Your task to perform on an android device: Add logitech g pro to the cart on amazon.com Image 0: 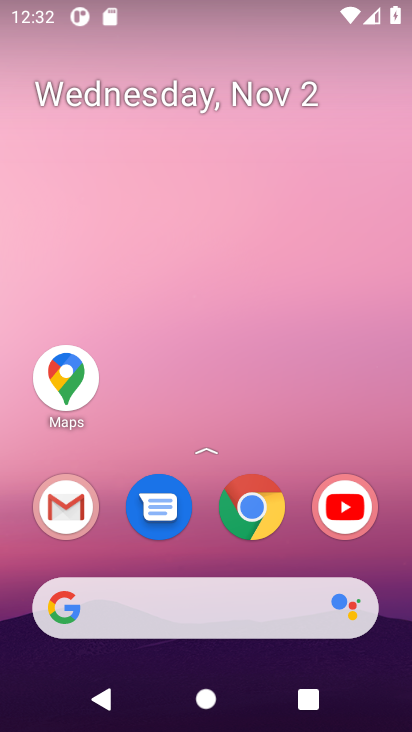
Step 0: click (184, 626)
Your task to perform on an android device: Add logitech g pro to the cart on amazon.com Image 1: 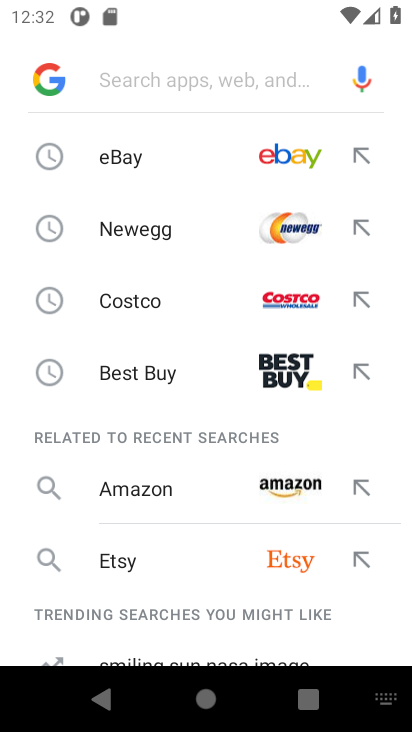
Step 1: click (135, 480)
Your task to perform on an android device: Add logitech g pro to the cart on amazon.com Image 2: 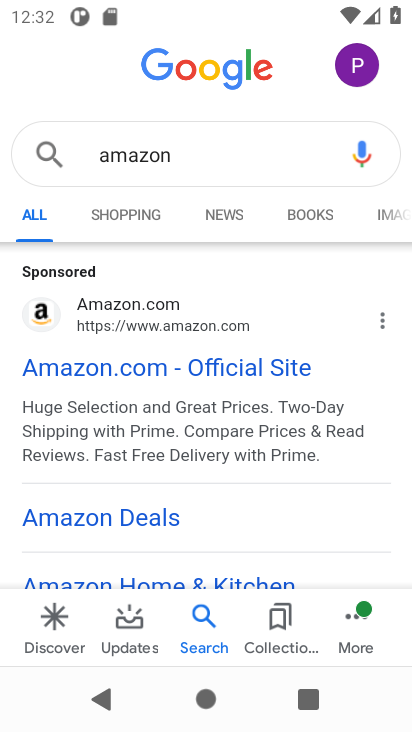
Step 2: click (81, 353)
Your task to perform on an android device: Add logitech g pro to the cart on amazon.com Image 3: 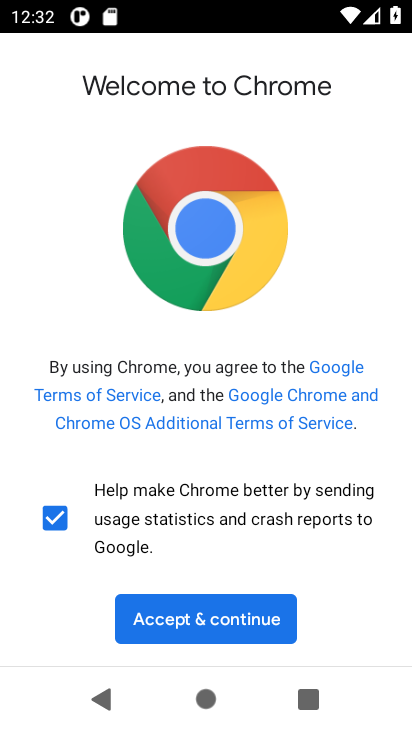
Step 3: click (242, 622)
Your task to perform on an android device: Add logitech g pro to the cart on amazon.com Image 4: 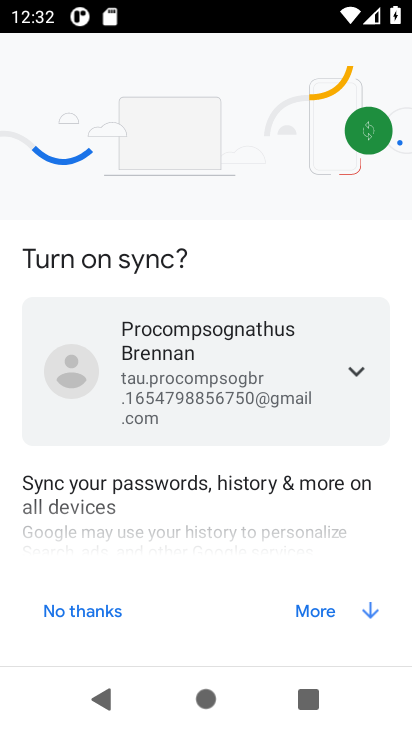
Step 4: click (334, 608)
Your task to perform on an android device: Add logitech g pro to the cart on amazon.com Image 5: 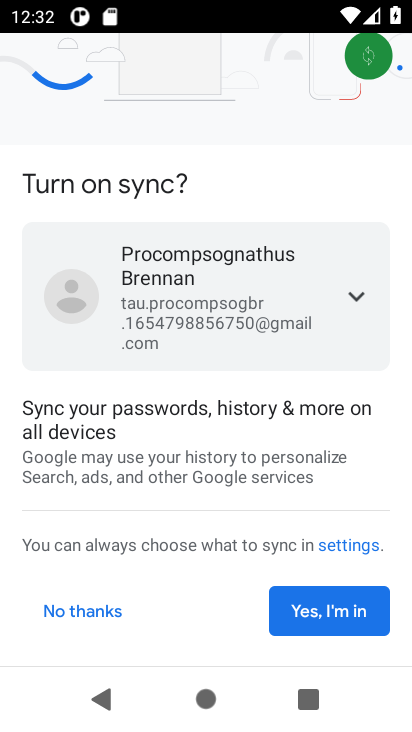
Step 5: click (349, 601)
Your task to perform on an android device: Add logitech g pro to the cart on amazon.com Image 6: 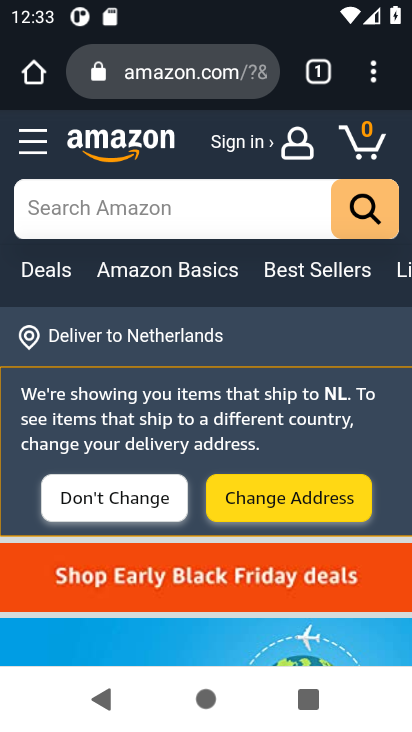
Step 6: click (259, 207)
Your task to perform on an android device: Add logitech g pro to the cart on amazon.com Image 7: 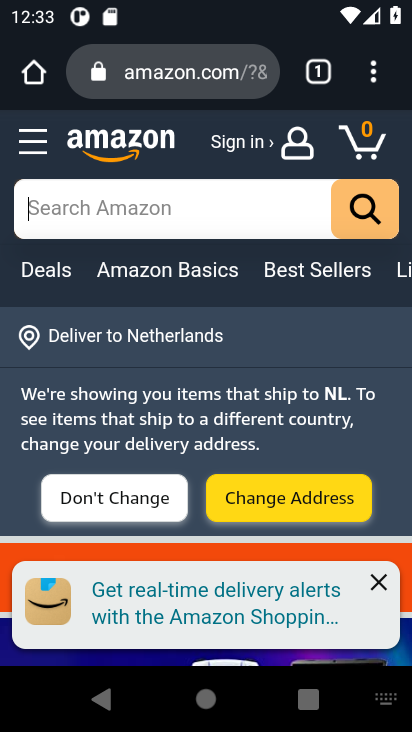
Step 7: click (391, 711)
Your task to perform on an android device: Add logitech g pro to the cart on amazon.com Image 8: 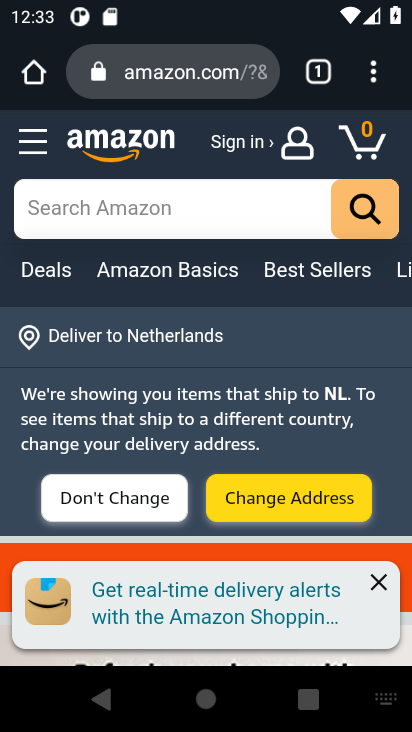
Step 8: type "logitech g pro"
Your task to perform on an android device: Add logitech g pro to the cart on amazon.com Image 9: 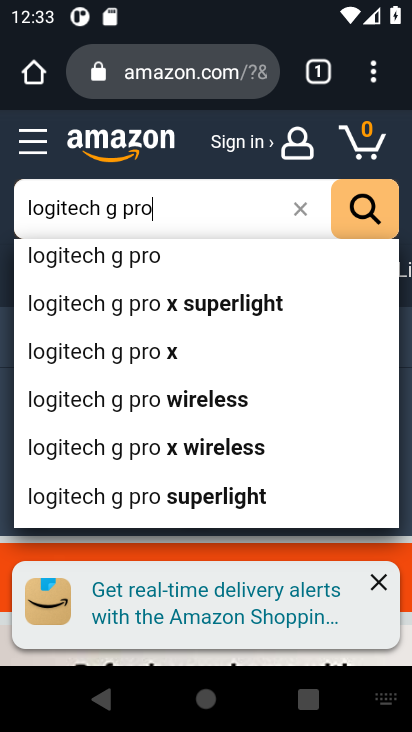
Step 9: type ""
Your task to perform on an android device: Add logitech g pro to the cart on amazon.com Image 10: 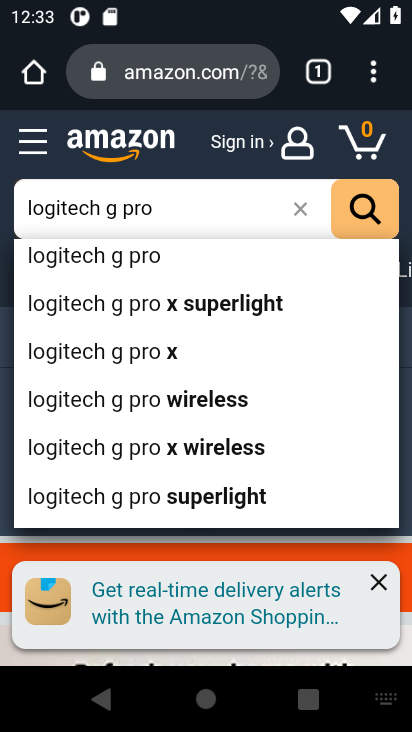
Step 10: click (167, 266)
Your task to perform on an android device: Add logitech g pro to the cart on amazon.com Image 11: 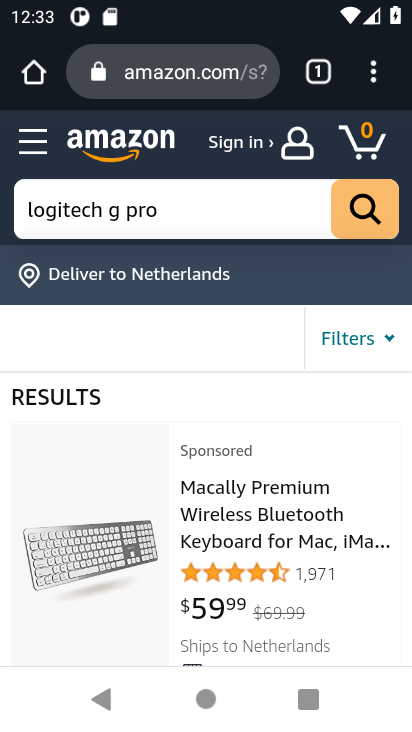
Step 11: drag from (304, 528) to (286, 288)
Your task to perform on an android device: Add logitech g pro to the cart on amazon.com Image 12: 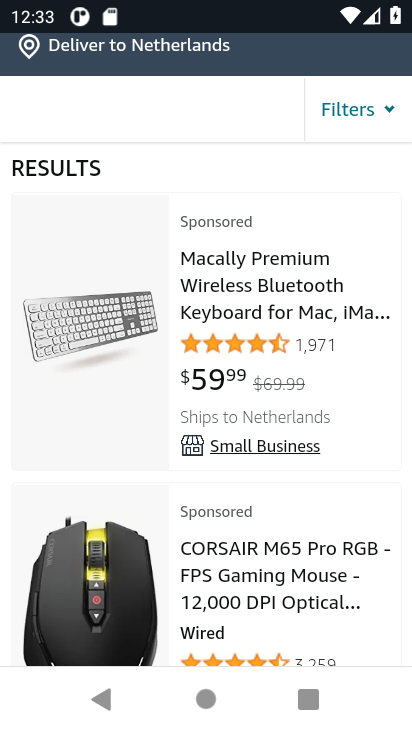
Step 12: drag from (277, 530) to (295, 268)
Your task to perform on an android device: Add logitech g pro to the cart on amazon.com Image 13: 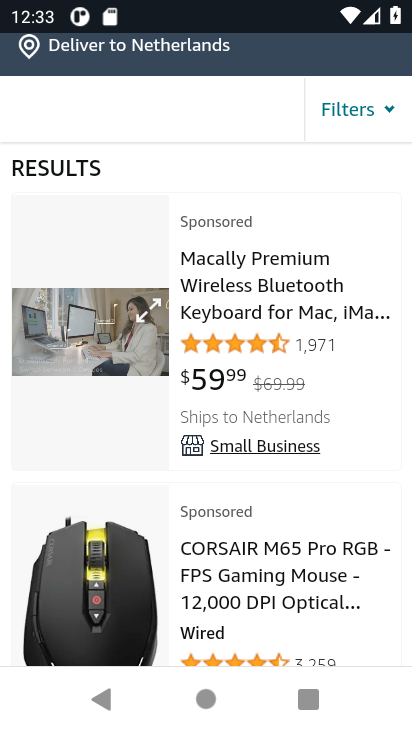
Step 13: drag from (265, 525) to (264, 257)
Your task to perform on an android device: Add logitech g pro to the cart on amazon.com Image 14: 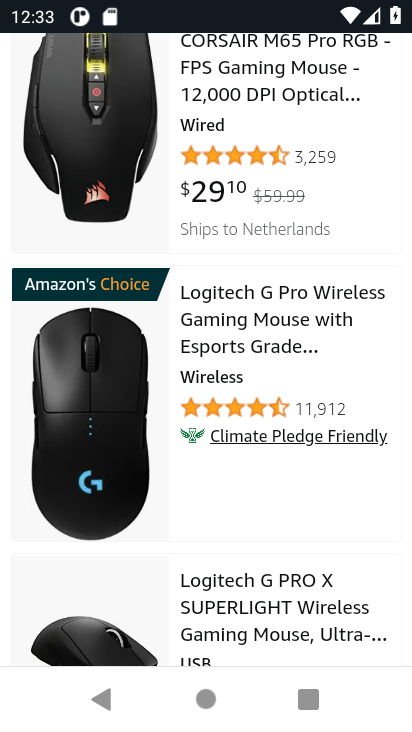
Step 14: click (307, 594)
Your task to perform on an android device: Add logitech g pro to the cart on amazon.com Image 15: 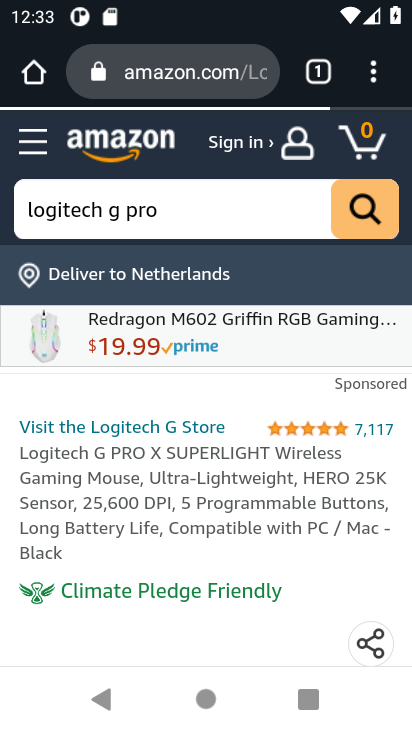
Step 15: drag from (321, 567) to (346, 402)
Your task to perform on an android device: Add logitech g pro to the cart on amazon.com Image 16: 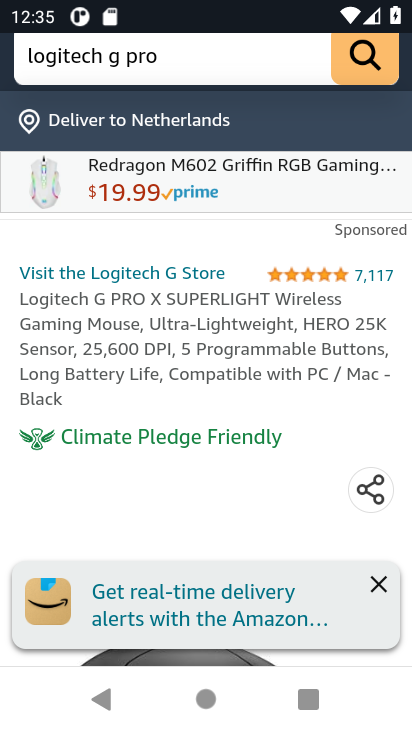
Step 16: drag from (240, 310) to (258, 499)
Your task to perform on an android device: Add logitech g pro to the cart on amazon.com Image 17: 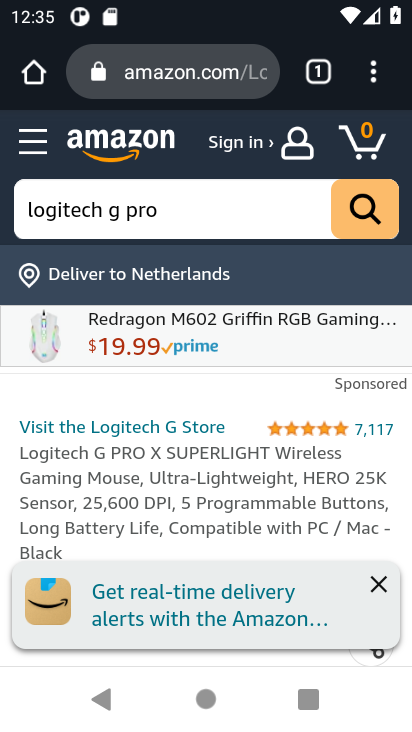
Step 17: drag from (202, 492) to (253, 330)
Your task to perform on an android device: Add logitech g pro to the cart on amazon.com Image 18: 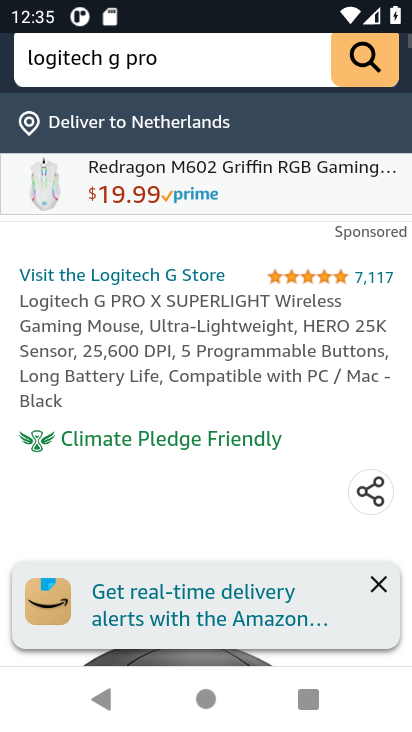
Step 18: drag from (247, 472) to (247, 318)
Your task to perform on an android device: Add logitech g pro to the cart on amazon.com Image 19: 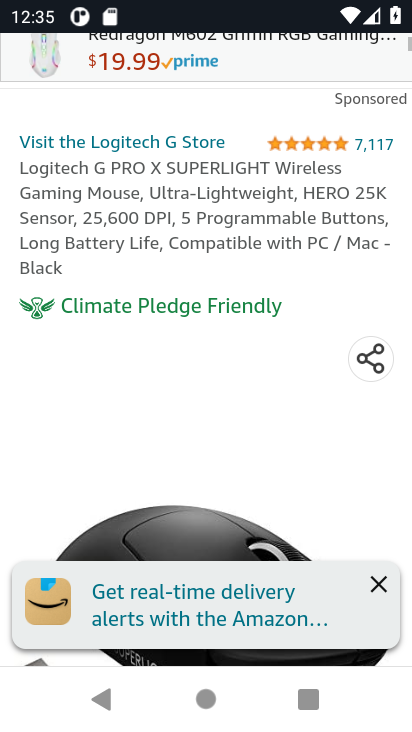
Step 19: drag from (269, 450) to (275, 353)
Your task to perform on an android device: Add logitech g pro to the cart on amazon.com Image 20: 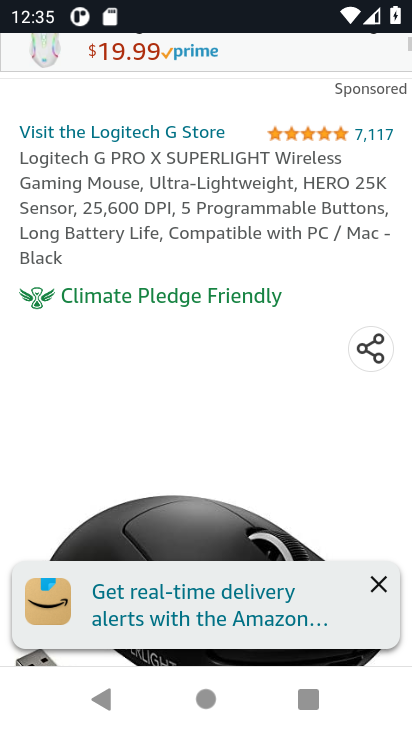
Step 20: drag from (272, 488) to (270, 299)
Your task to perform on an android device: Add logitech g pro to the cart on amazon.com Image 21: 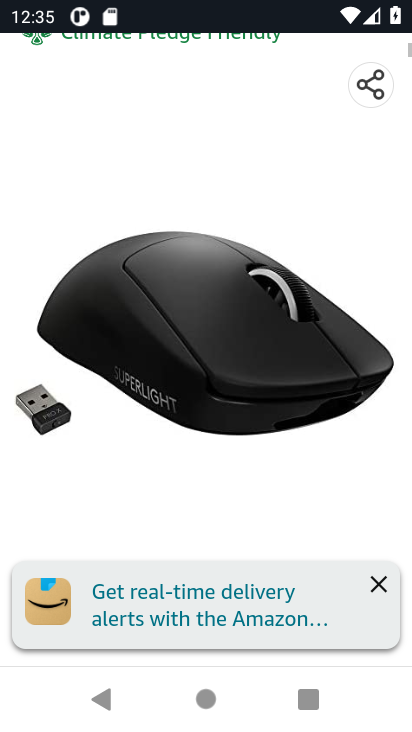
Step 21: drag from (248, 471) to (260, 273)
Your task to perform on an android device: Add logitech g pro to the cart on amazon.com Image 22: 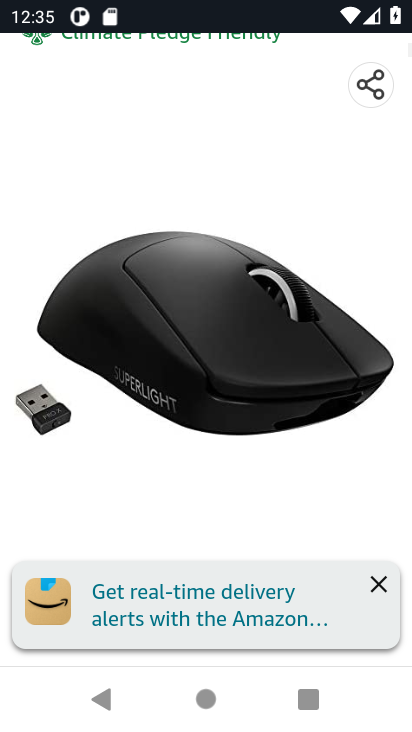
Step 22: drag from (269, 440) to (272, 344)
Your task to perform on an android device: Add logitech g pro to the cart on amazon.com Image 23: 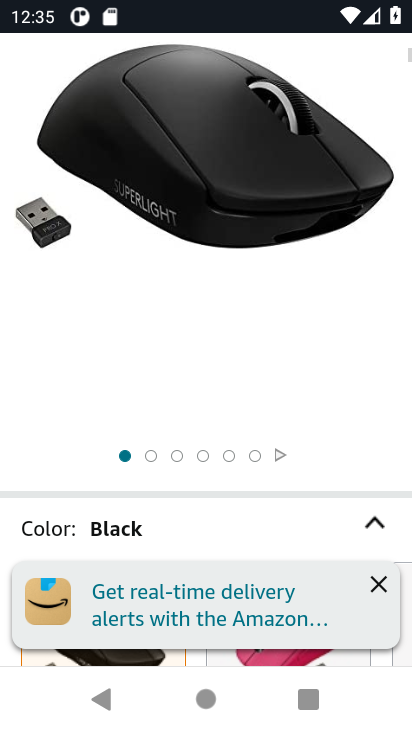
Step 23: drag from (276, 389) to (288, 278)
Your task to perform on an android device: Add logitech g pro to the cart on amazon.com Image 24: 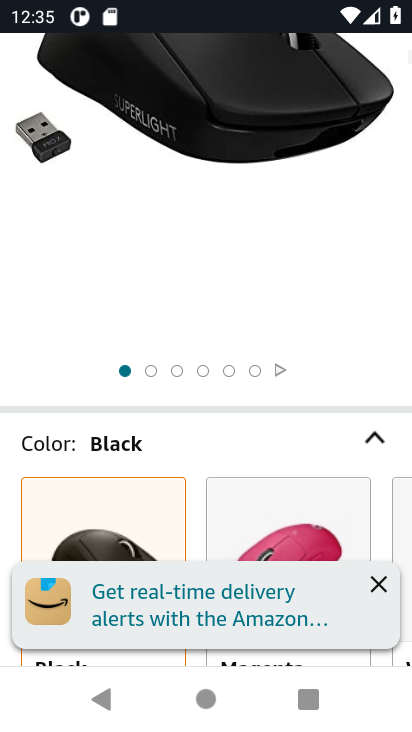
Step 24: drag from (272, 452) to (281, 348)
Your task to perform on an android device: Add logitech g pro to the cart on amazon.com Image 25: 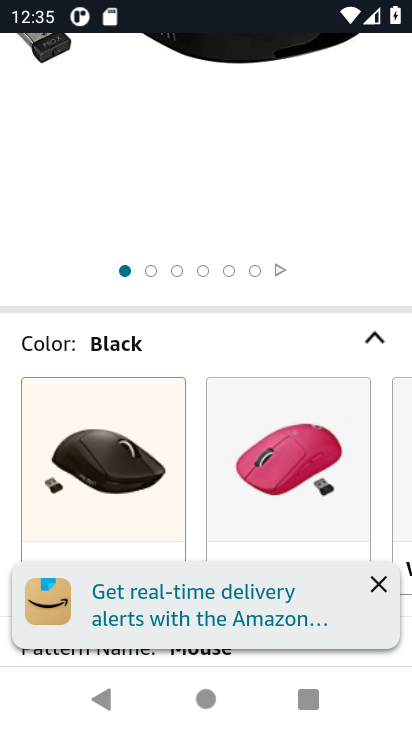
Step 25: drag from (269, 428) to (304, 240)
Your task to perform on an android device: Add logitech g pro to the cart on amazon.com Image 26: 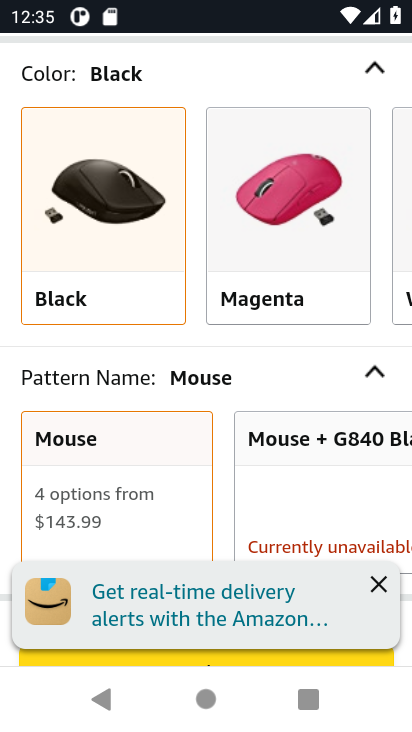
Step 26: drag from (237, 388) to (273, 175)
Your task to perform on an android device: Add logitech g pro to the cart on amazon.com Image 27: 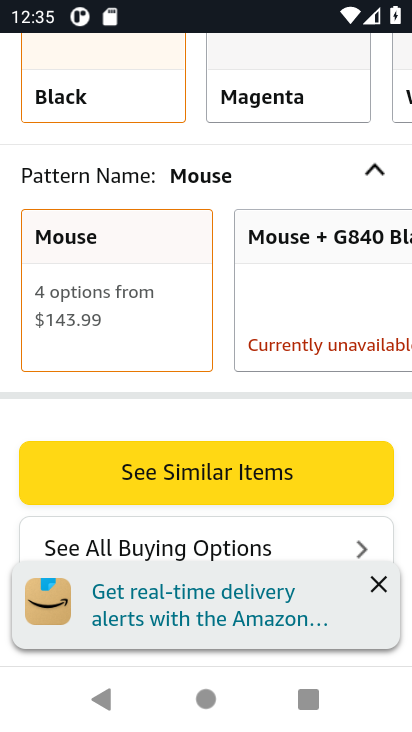
Step 27: click (268, 474)
Your task to perform on an android device: Add logitech g pro to the cart on amazon.com Image 28: 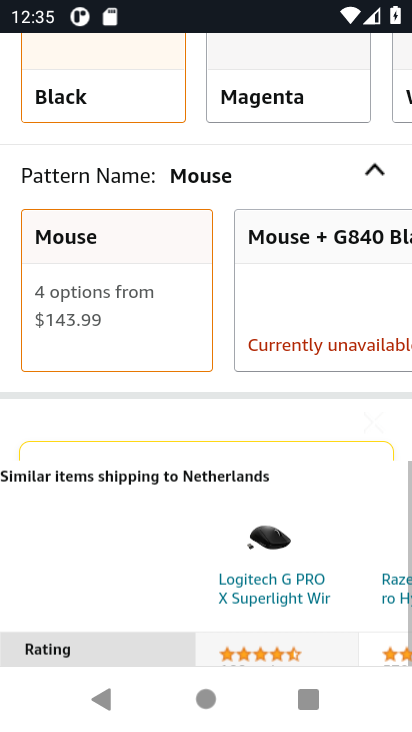
Step 28: task complete